Your task to perform on an android device: Go to location settings Image 0: 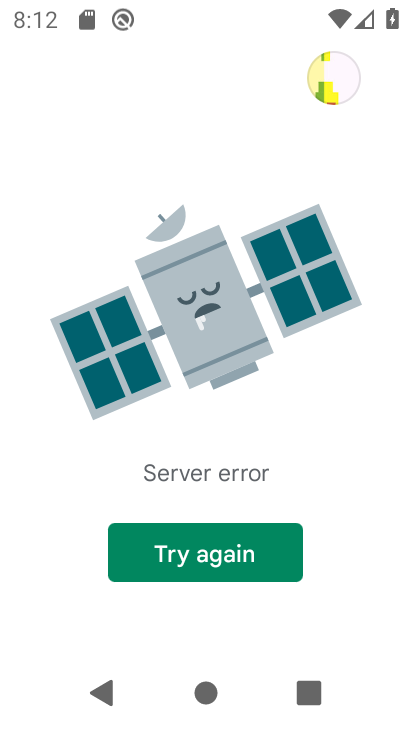
Step 0: press home button
Your task to perform on an android device: Go to location settings Image 1: 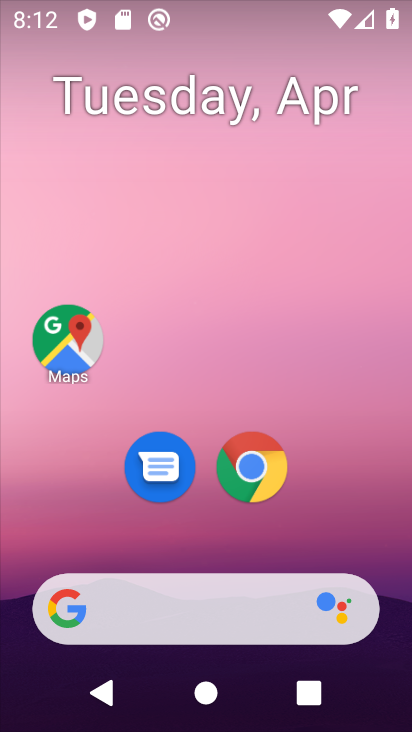
Step 1: drag from (353, 556) to (386, 12)
Your task to perform on an android device: Go to location settings Image 2: 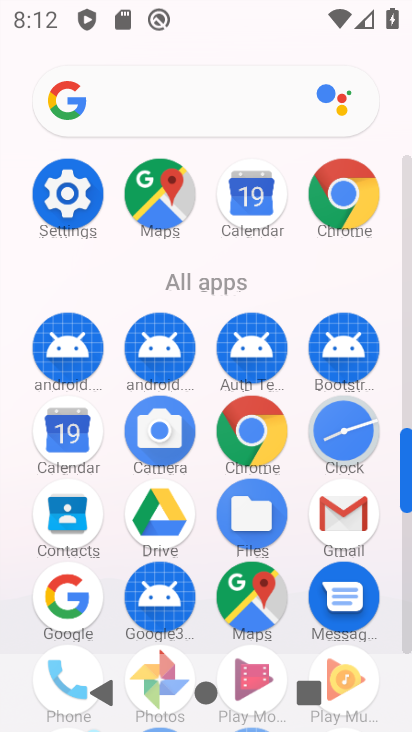
Step 2: click (75, 190)
Your task to perform on an android device: Go to location settings Image 3: 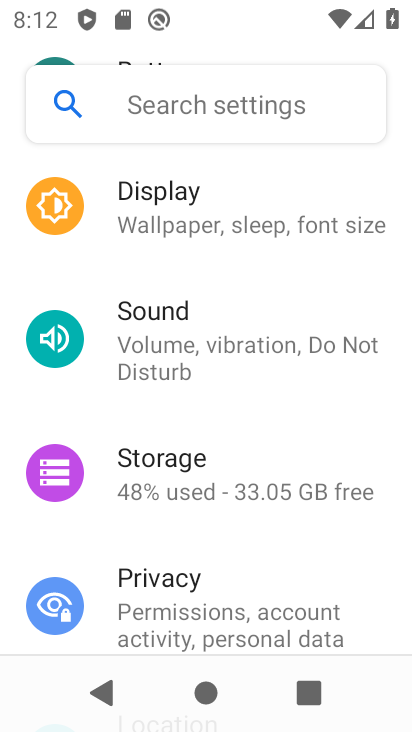
Step 3: drag from (308, 534) to (283, 132)
Your task to perform on an android device: Go to location settings Image 4: 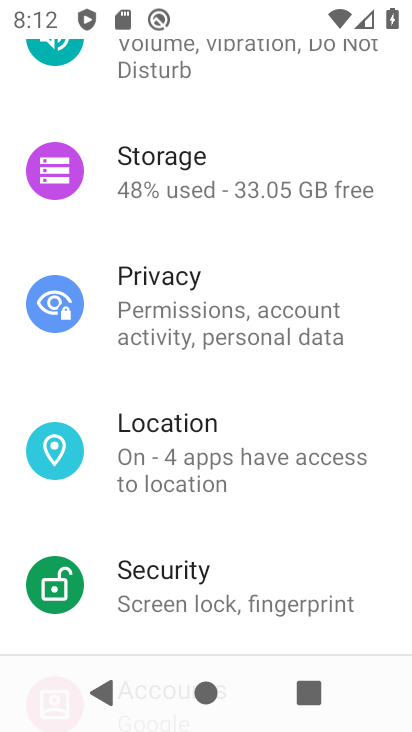
Step 4: click (160, 447)
Your task to perform on an android device: Go to location settings Image 5: 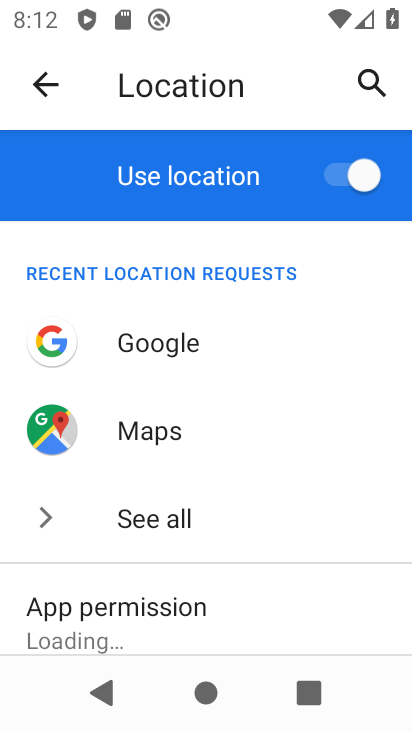
Step 5: task complete